Your task to perform on an android device: Play the last video I watched on Youtube Image 0: 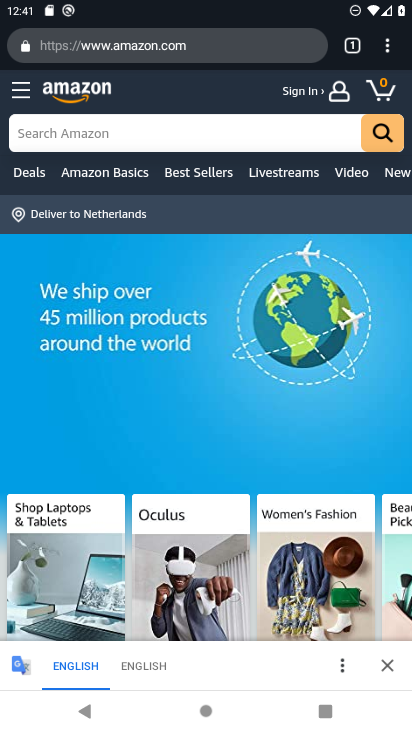
Step 0: press home button
Your task to perform on an android device: Play the last video I watched on Youtube Image 1: 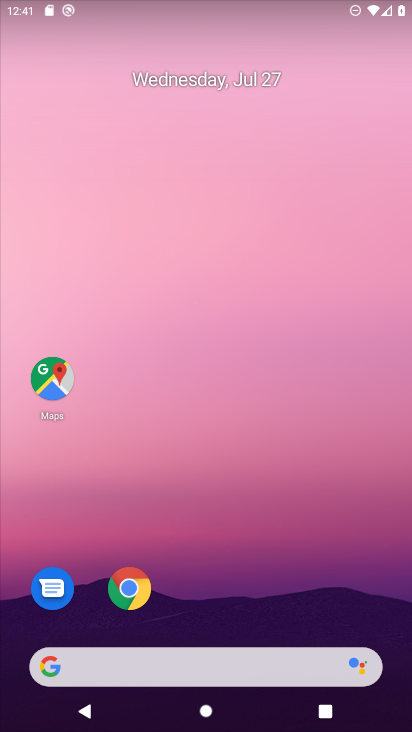
Step 1: task complete